Your task to perform on an android device: Go to Google maps Image 0: 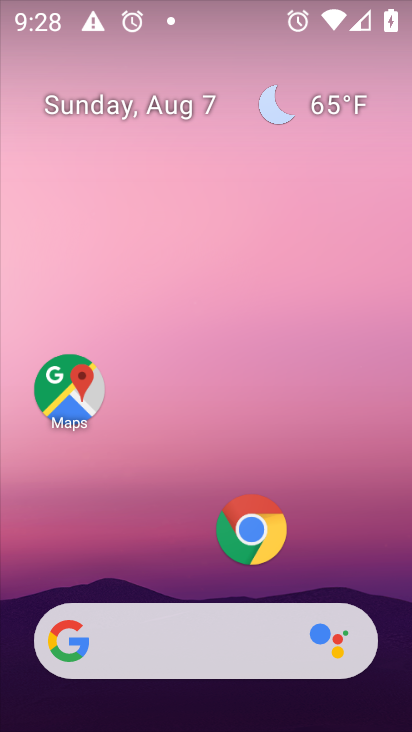
Step 0: click (79, 386)
Your task to perform on an android device: Go to Google maps Image 1: 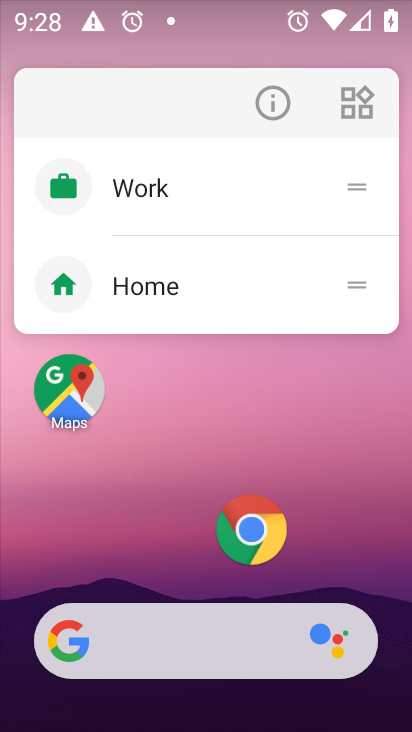
Step 1: click (84, 394)
Your task to perform on an android device: Go to Google maps Image 2: 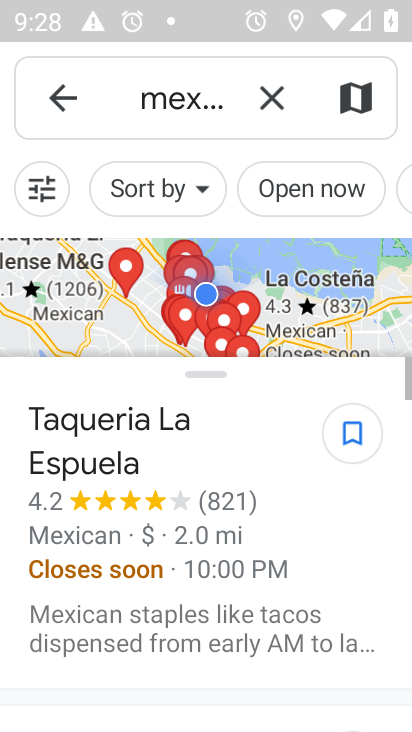
Step 2: click (58, 96)
Your task to perform on an android device: Go to Google maps Image 3: 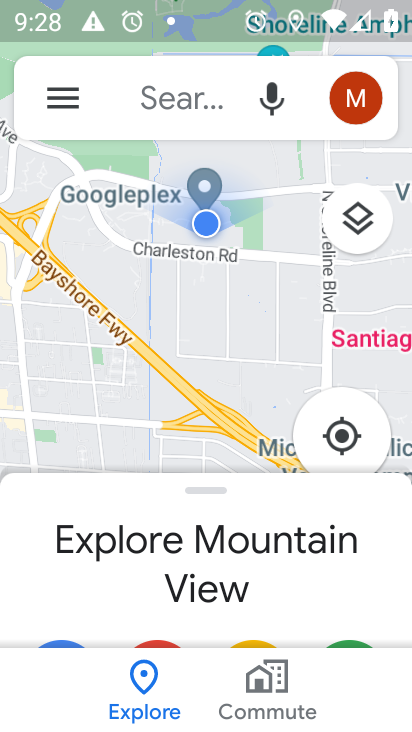
Step 3: task complete